Your task to perform on an android device: Open Android settings Image 0: 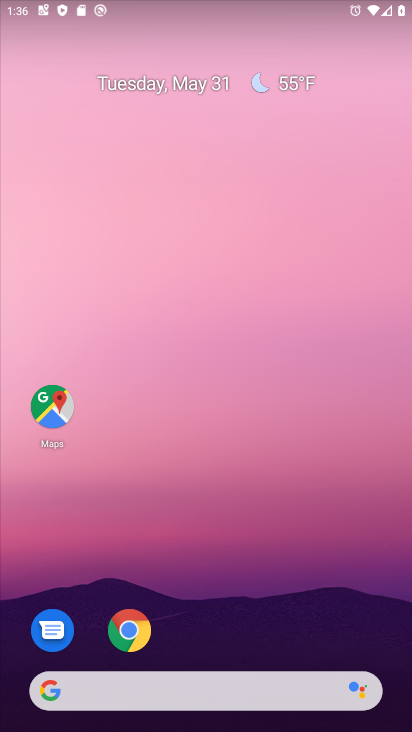
Step 0: click (54, 403)
Your task to perform on an android device: Open Android settings Image 1: 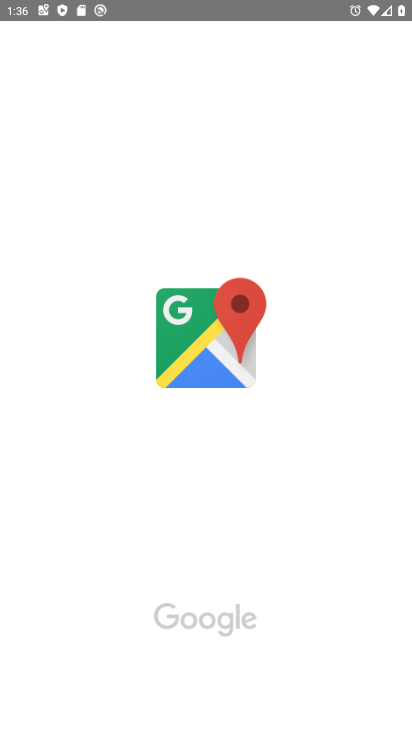
Step 1: press home button
Your task to perform on an android device: Open Android settings Image 2: 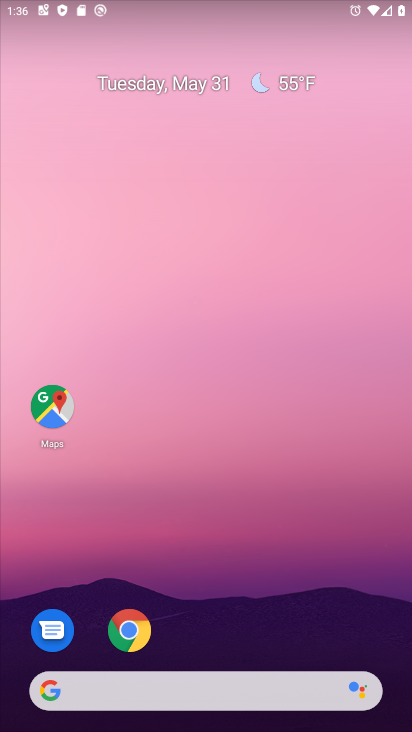
Step 2: drag from (147, 671) to (199, 290)
Your task to perform on an android device: Open Android settings Image 3: 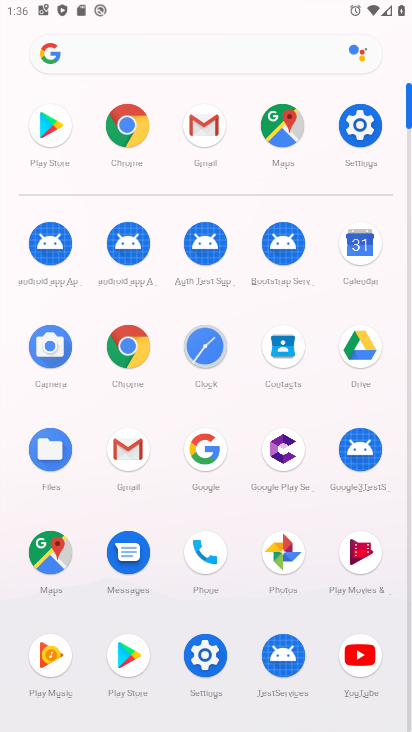
Step 3: click (363, 126)
Your task to perform on an android device: Open Android settings Image 4: 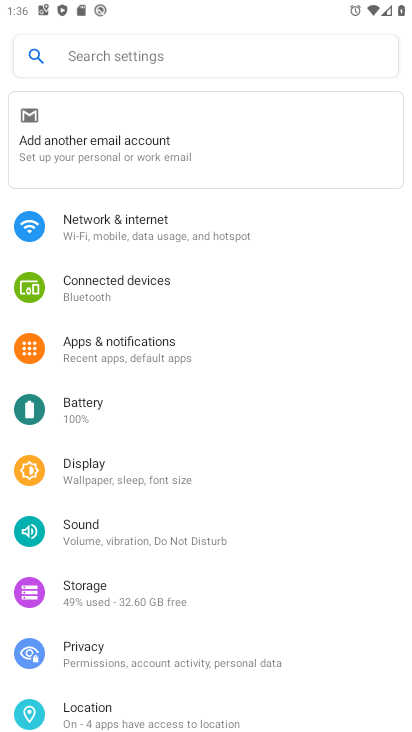
Step 4: task complete